Your task to perform on an android device: toggle translation in the chrome app Image 0: 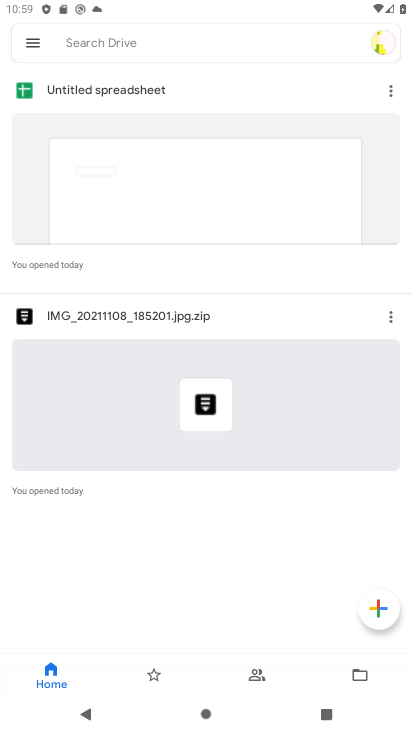
Step 0: press home button
Your task to perform on an android device: toggle translation in the chrome app Image 1: 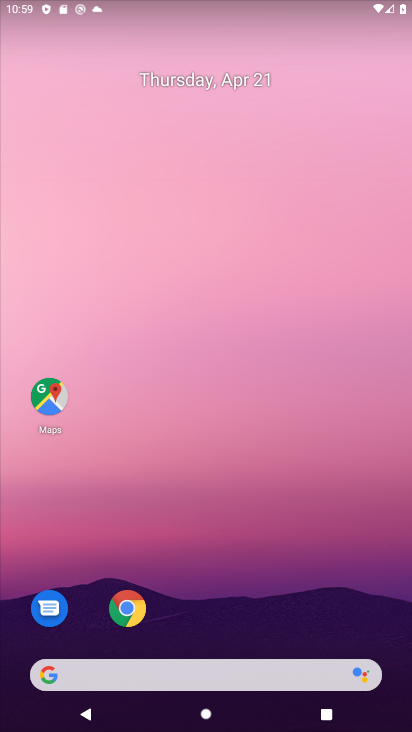
Step 1: click (124, 605)
Your task to perform on an android device: toggle translation in the chrome app Image 2: 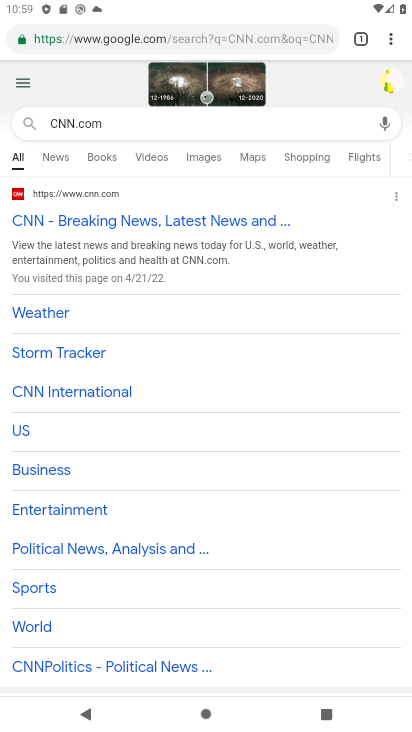
Step 2: click (392, 38)
Your task to perform on an android device: toggle translation in the chrome app Image 3: 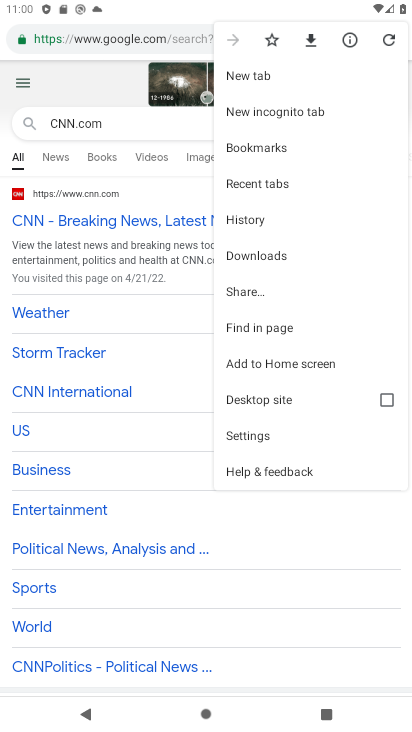
Step 3: click (256, 437)
Your task to perform on an android device: toggle translation in the chrome app Image 4: 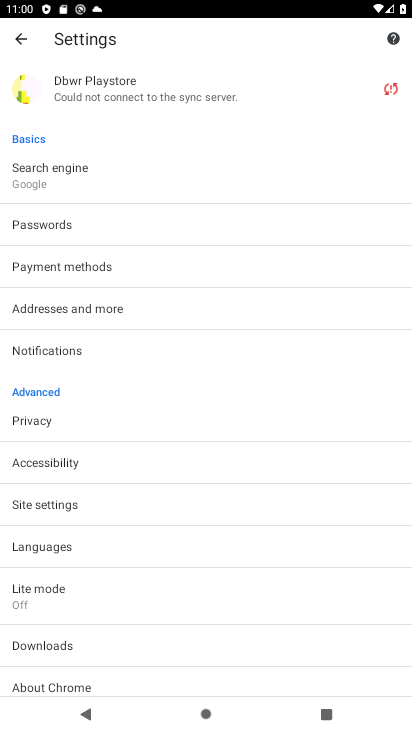
Step 4: click (56, 549)
Your task to perform on an android device: toggle translation in the chrome app Image 5: 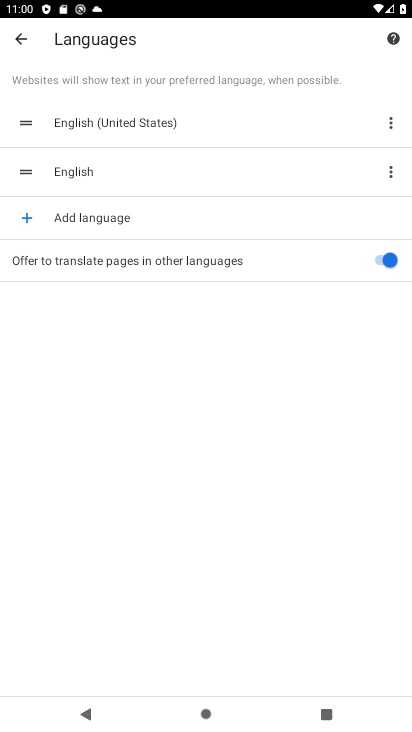
Step 5: click (388, 258)
Your task to perform on an android device: toggle translation in the chrome app Image 6: 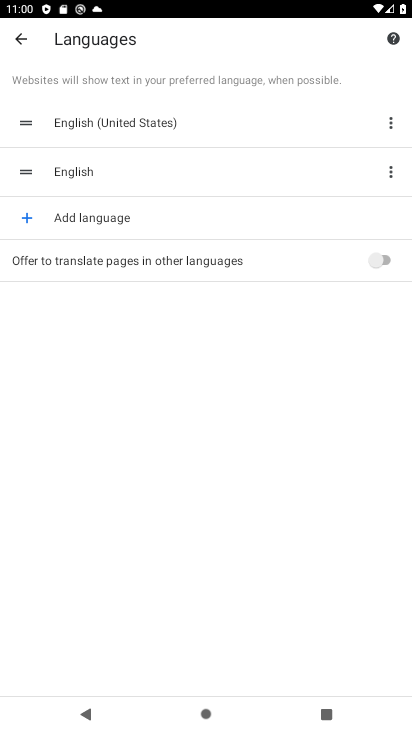
Step 6: task complete